Your task to perform on an android device: stop showing notifications on the lock screen Image 0: 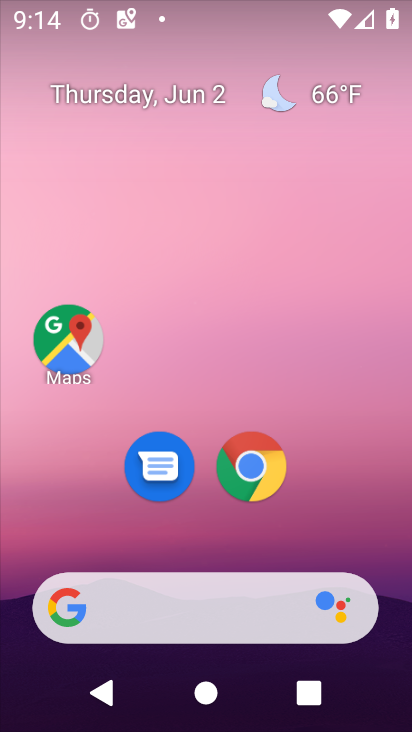
Step 0: drag from (60, 518) to (283, 179)
Your task to perform on an android device: stop showing notifications on the lock screen Image 1: 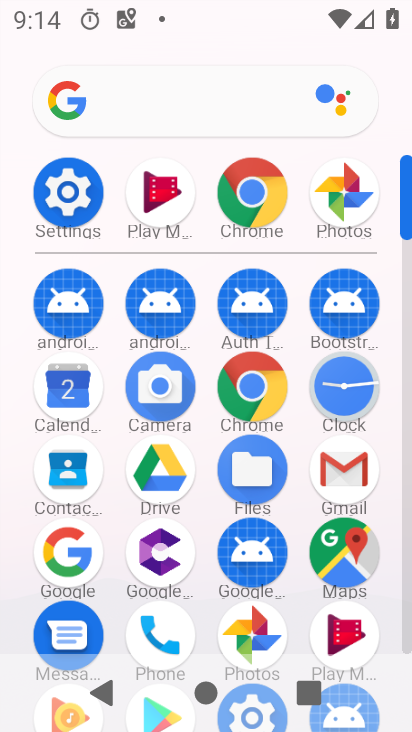
Step 1: click (47, 200)
Your task to perform on an android device: stop showing notifications on the lock screen Image 2: 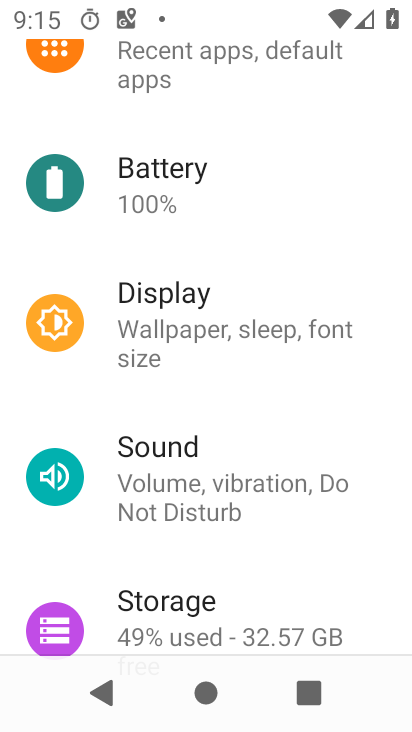
Step 2: drag from (12, 416) to (225, 82)
Your task to perform on an android device: stop showing notifications on the lock screen Image 3: 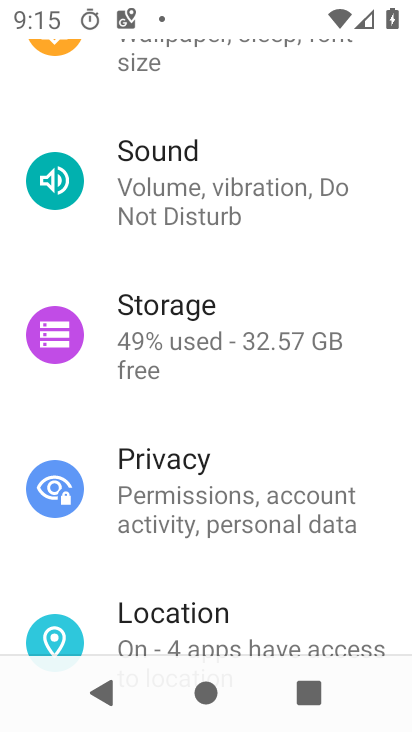
Step 3: drag from (231, 71) to (109, 512)
Your task to perform on an android device: stop showing notifications on the lock screen Image 4: 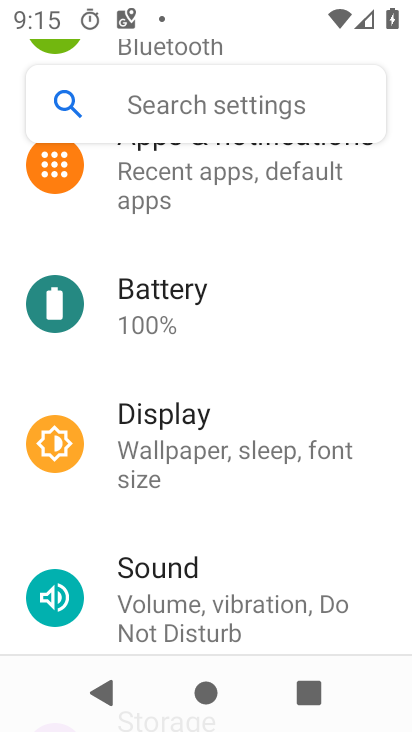
Step 4: drag from (223, 225) to (176, 611)
Your task to perform on an android device: stop showing notifications on the lock screen Image 5: 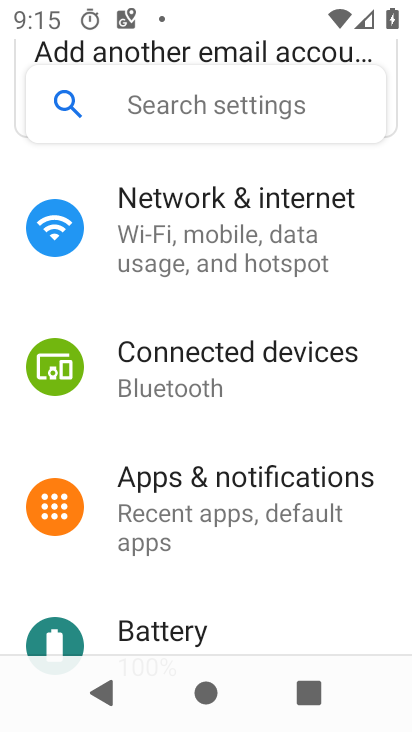
Step 5: click (195, 482)
Your task to perform on an android device: stop showing notifications on the lock screen Image 6: 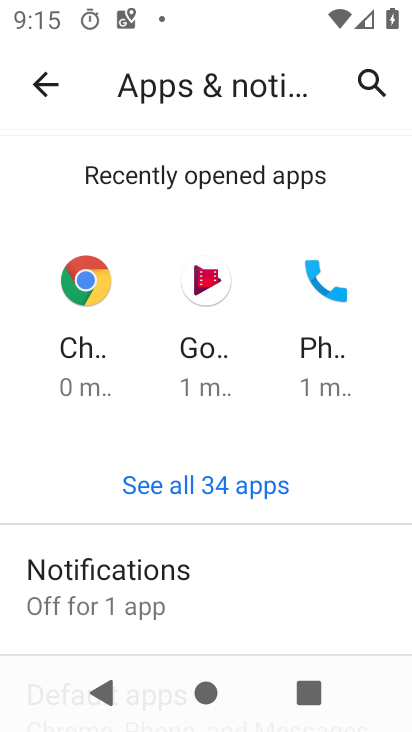
Step 6: drag from (7, 649) to (193, 156)
Your task to perform on an android device: stop showing notifications on the lock screen Image 7: 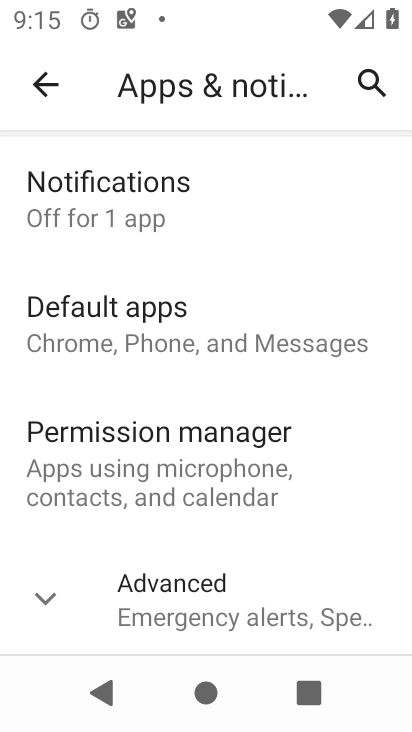
Step 7: click (144, 193)
Your task to perform on an android device: stop showing notifications on the lock screen Image 8: 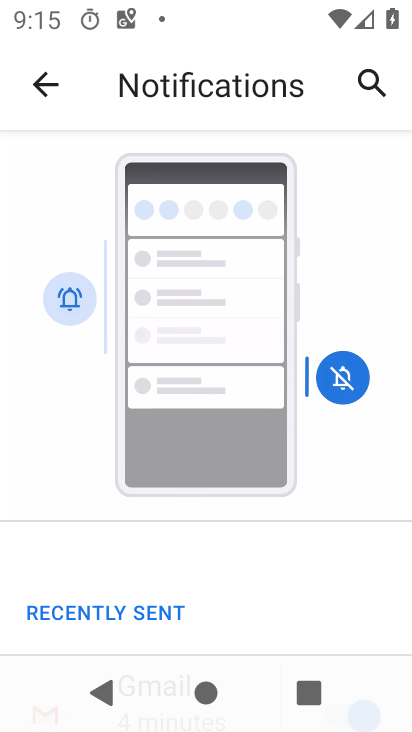
Step 8: drag from (37, 415) to (255, 55)
Your task to perform on an android device: stop showing notifications on the lock screen Image 9: 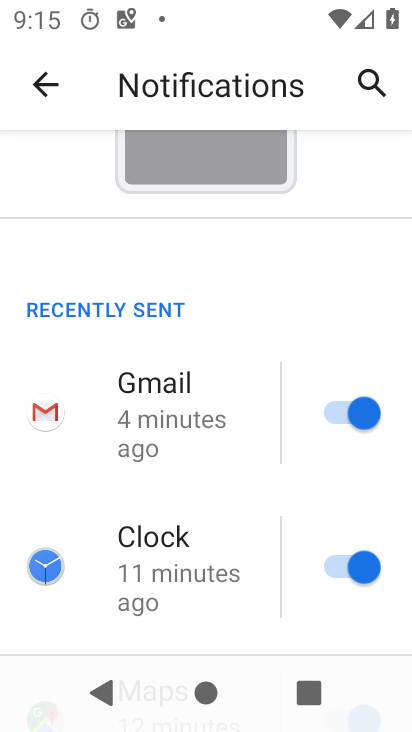
Step 9: drag from (86, 466) to (296, 121)
Your task to perform on an android device: stop showing notifications on the lock screen Image 10: 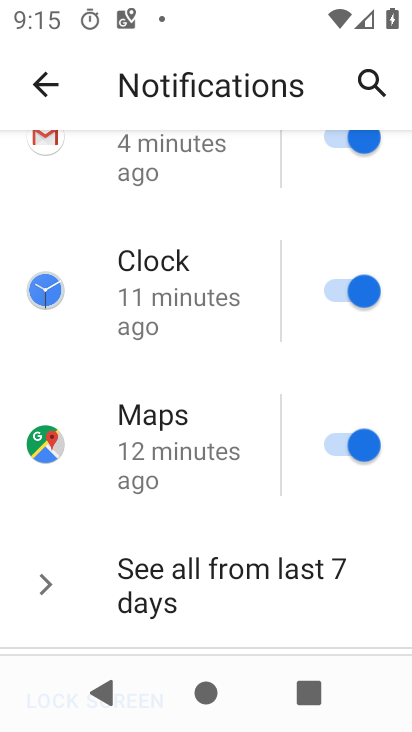
Step 10: drag from (39, 506) to (281, 146)
Your task to perform on an android device: stop showing notifications on the lock screen Image 11: 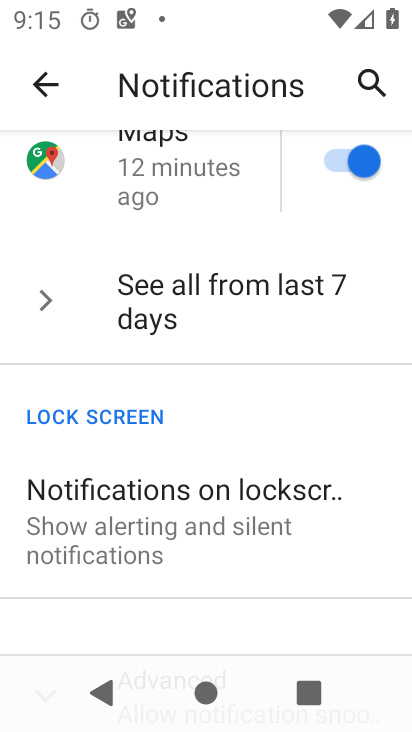
Step 11: click (64, 512)
Your task to perform on an android device: stop showing notifications on the lock screen Image 12: 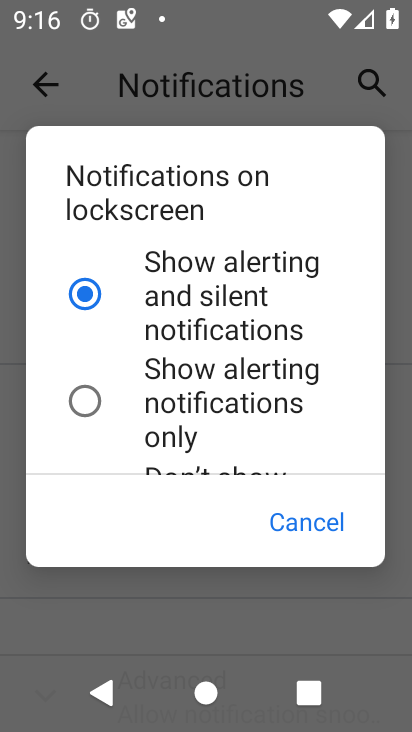
Step 12: drag from (71, 436) to (246, 157)
Your task to perform on an android device: stop showing notifications on the lock screen Image 13: 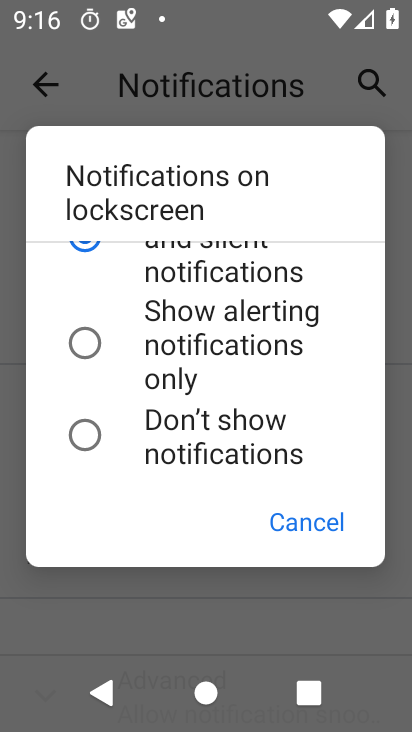
Step 13: click (74, 432)
Your task to perform on an android device: stop showing notifications on the lock screen Image 14: 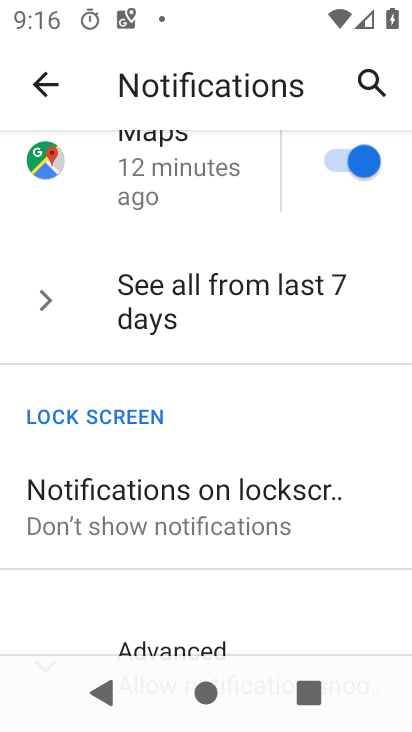
Step 14: task complete